Your task to perform on an android device: create a new album in the google photos Image 0: 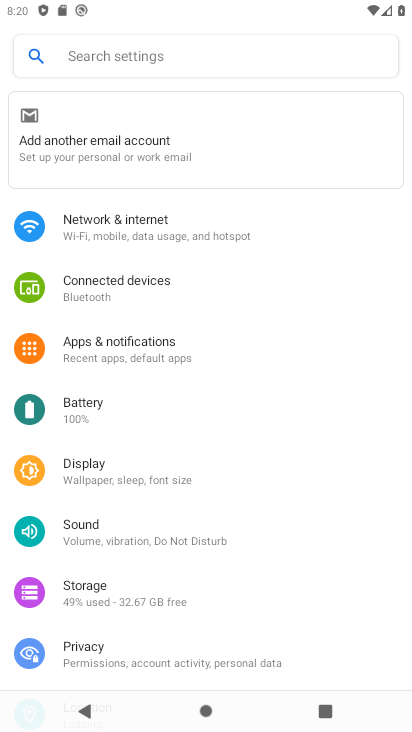
Step 0: press home button
Your task to perform on an android device: create a new album in the google photos Image 1: 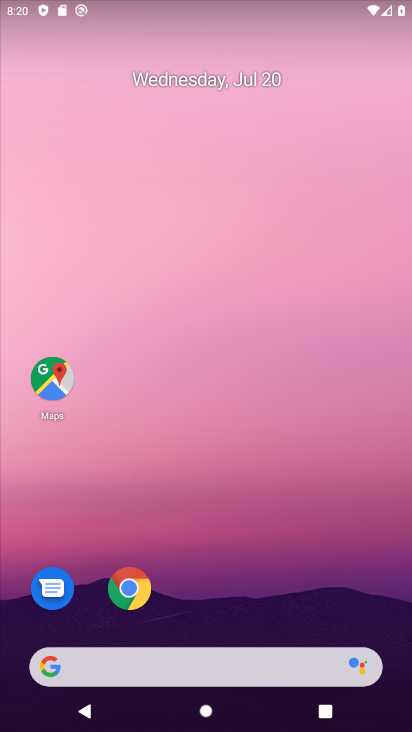
Step 1: drag from (262, 606) to (186, 111)
Your task to perform on an android device: create a new album in the google photos Image 2: 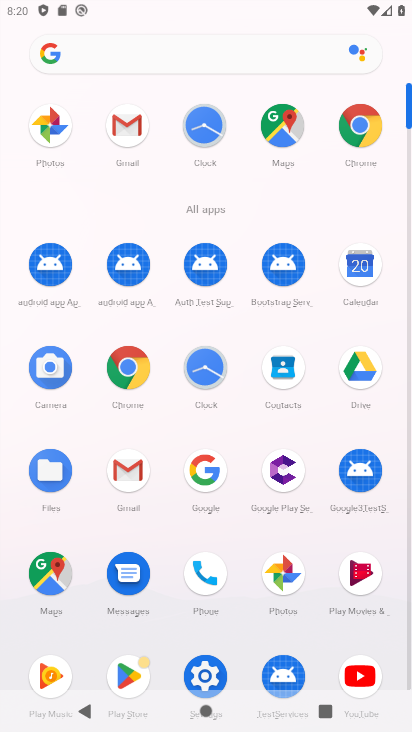
Step 2: click (62, 128)
Your task to perform on an android device: create a new album in the google photos Image 3: 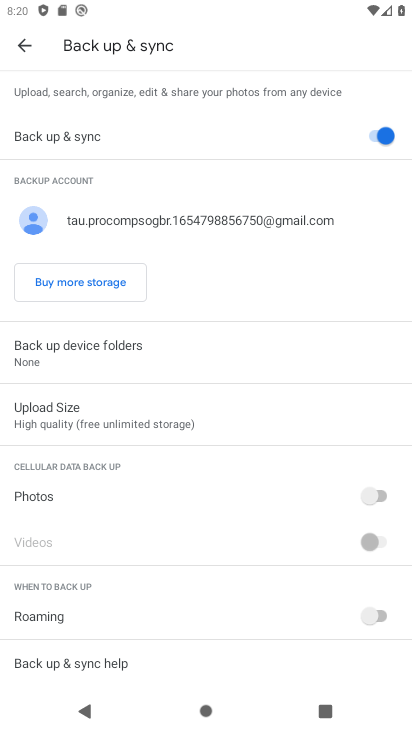
Step 3: click (35, 52)
Your task to perform on an android device: create a new album in the google photos Image 4: 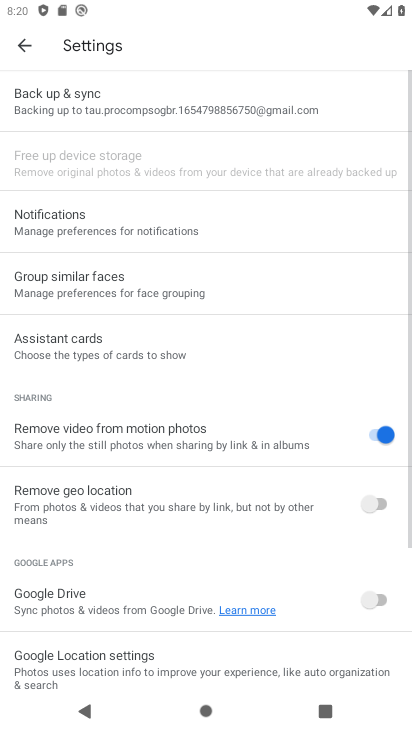
Step 4: click (35, 52)
Your task to perform on an android device: create a new album in the google photos Image 5: 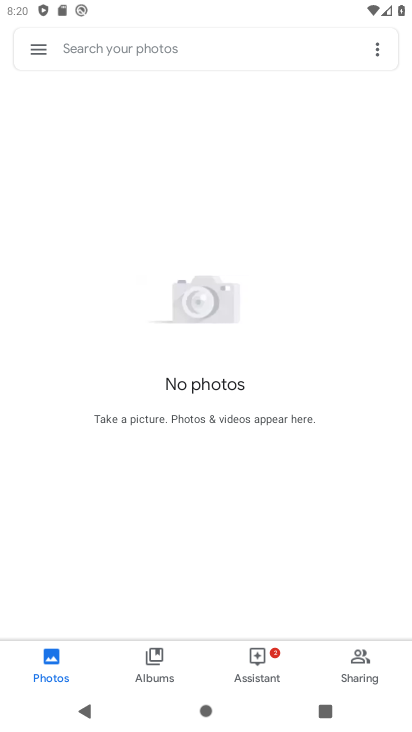
Step 5: task complete